Your task to perform on an android device: delete browsing data in the chrome app Image 0: 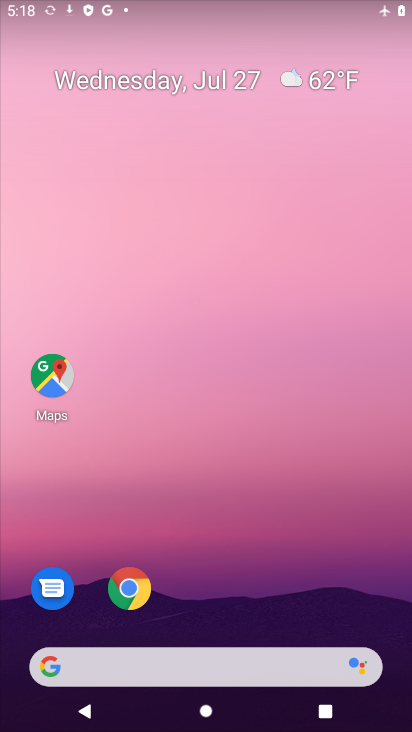
Step 0: click (133, 598)
Your task to perform on an android device: delete browsing data in the chrome app Image 1: 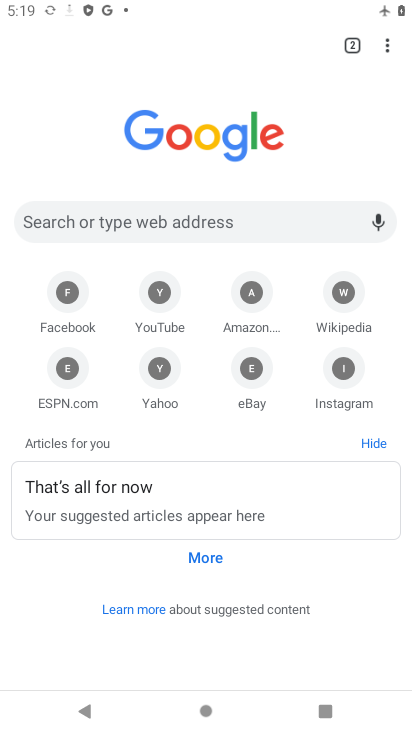
Step 1: press home button
Your task to perform on an android device: delete browsing data in the chrome app Image 2: 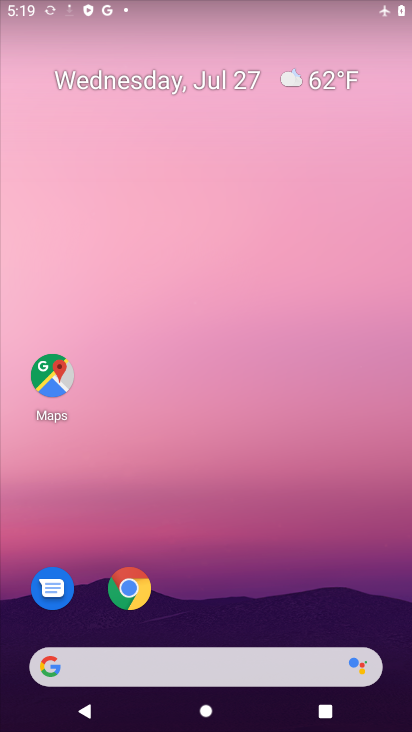
Step 2: click (128, 589)
Your task to perform on an android device: delete browsing data in the chrome app Image 3: 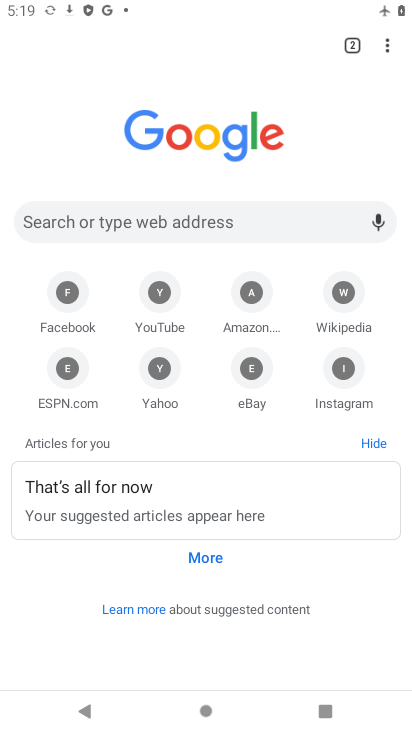
Step 3: click (384, 50)
Your task to perform on an android device: delete browsing data in the chrome app Image 4: 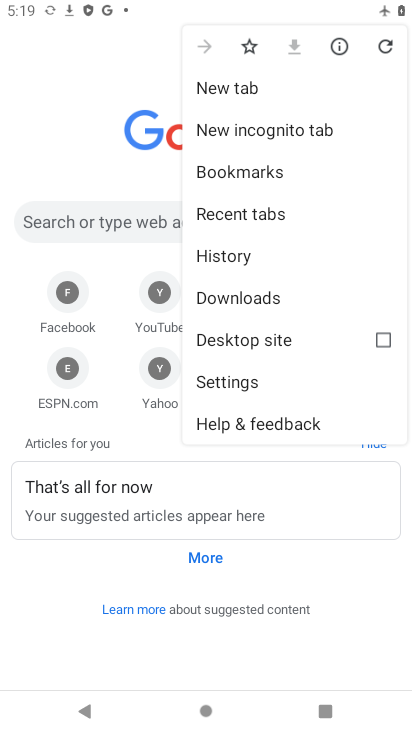
Step 4: click (232, 248)
Your task to perform on an android device: delete browsing data in the chrome app Image 5: 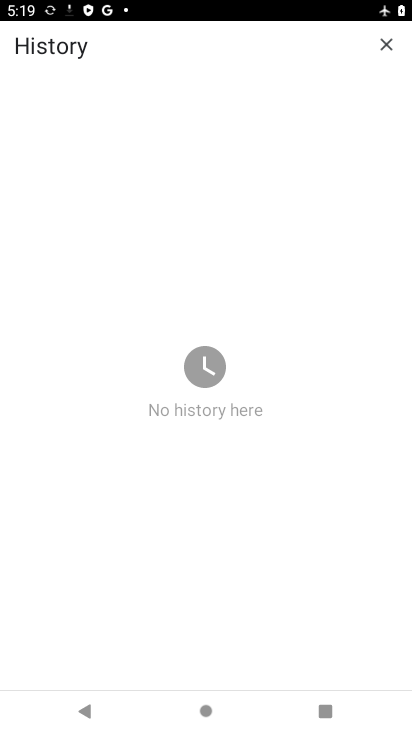
Step 5: task complete